Your task to perform on an android device: turn notification dots off Image 0: 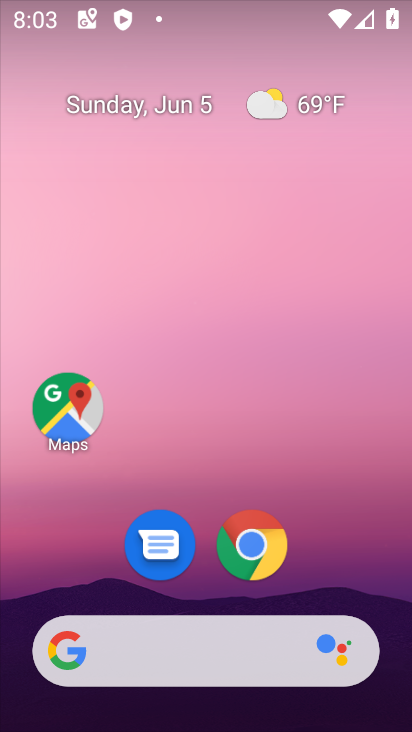
Step 0: drag from (360, 551) to (370, 204)
Your task to perform on an android device: turn notification dots off Image 1: 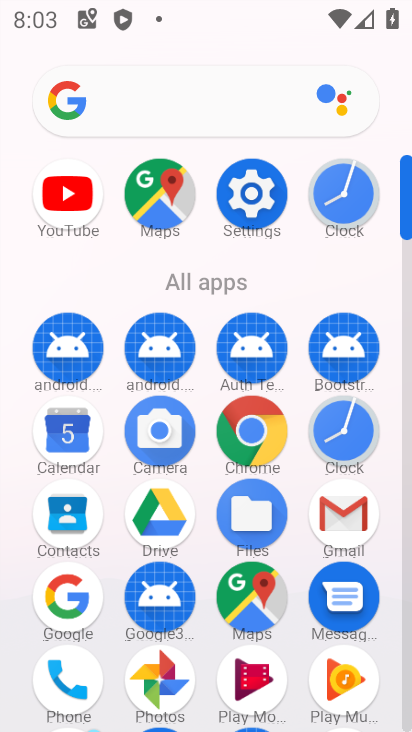
Step 1: click (261, 209)
Your task to perform on an android device: turn notification dots off Image 2: 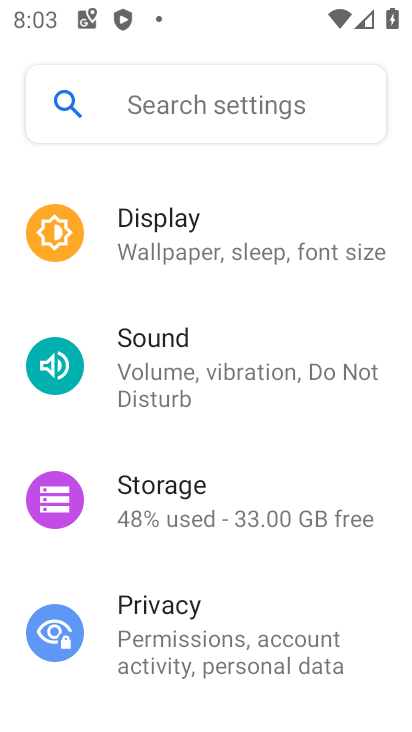
Step 2: drag from (372, 429) to (373, 544)
Your task to perform on an android device: turn notification dots off Image 3: 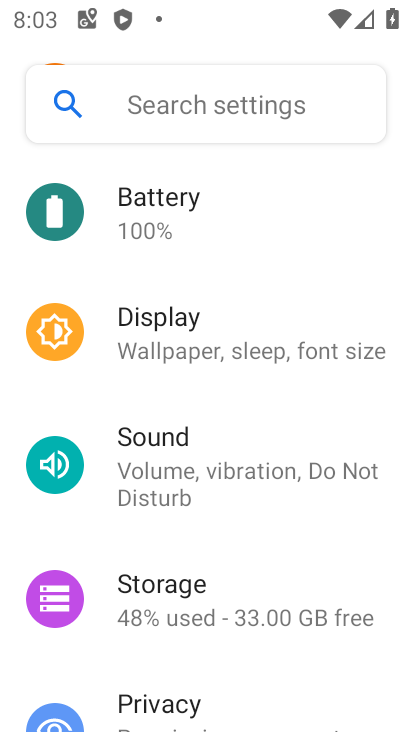
Step 3: drag from (369, 253) to (385, 389)
Your task to perform on an android device: turn notification dots off Image 4: 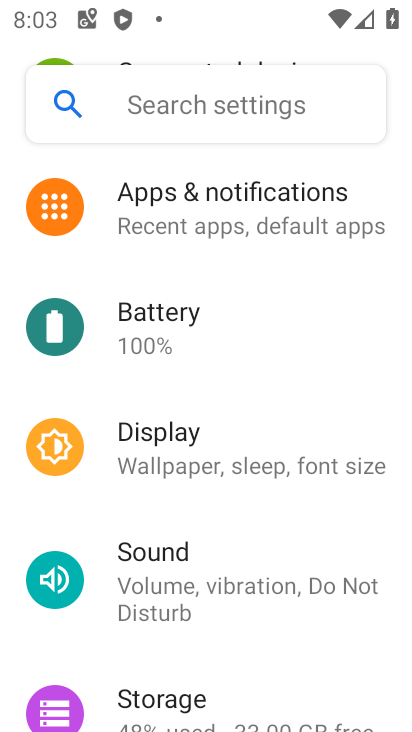
Step 4: drag from (382, 183) to (381, 340)
Your task to perform on an android device: turn notification dots off Image 5: 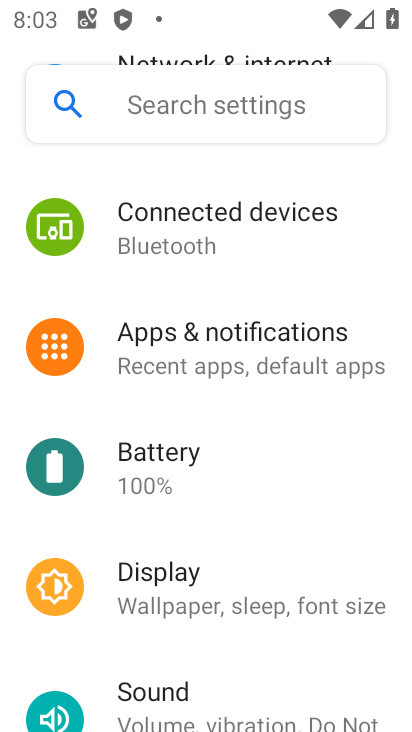
Step 5: drag from (373, 175) to (390, 489)
Your task to perform on an android device: turn notification dots off Image 6: 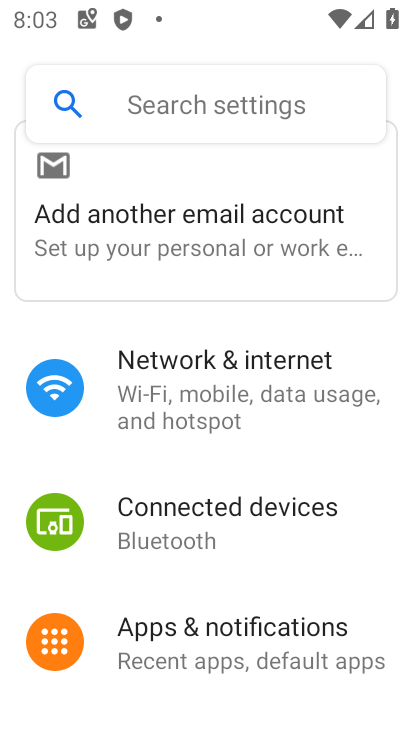
Step 6: click (283, 640)
Your task to perform on an android device: turn notification dots off Image 7: 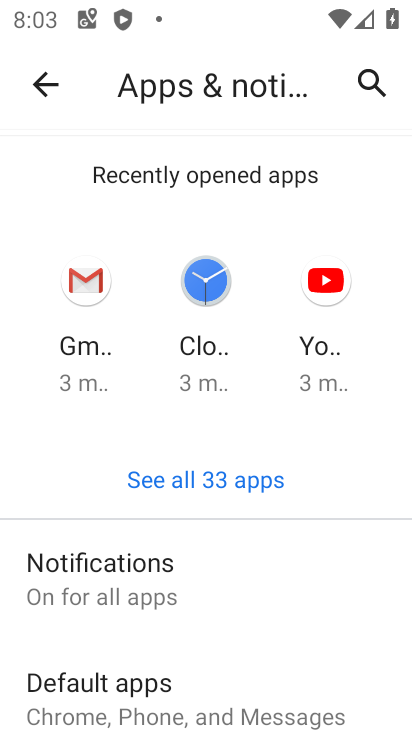
Step 7: click (195, 588)
Your task to perform on an android device: turn notification dots off Image 8: 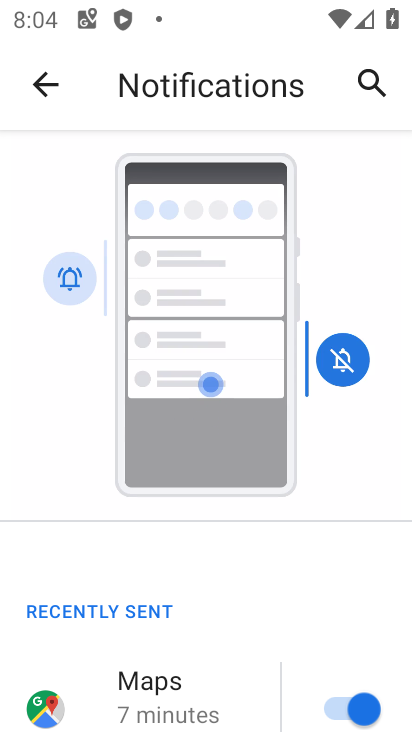
Step 8: drag from (292, 604) to (294, 467)
Your task to perform on an android device: turn notification dots off Image 9: 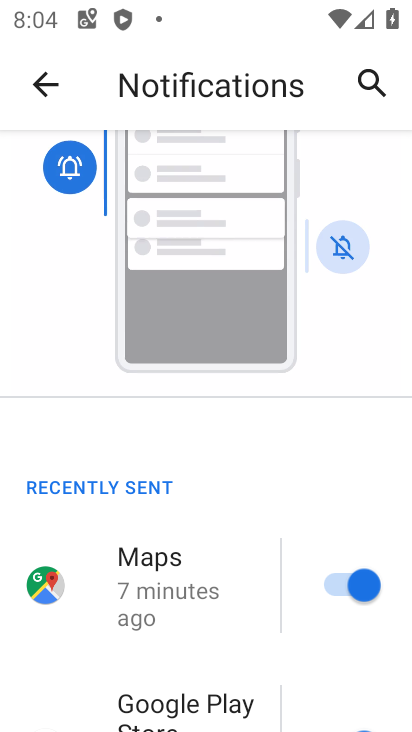
Step 9: drag from (247, 635) to (243, 472)
Your task to perform on an android device: turn notification dots off Image 10: 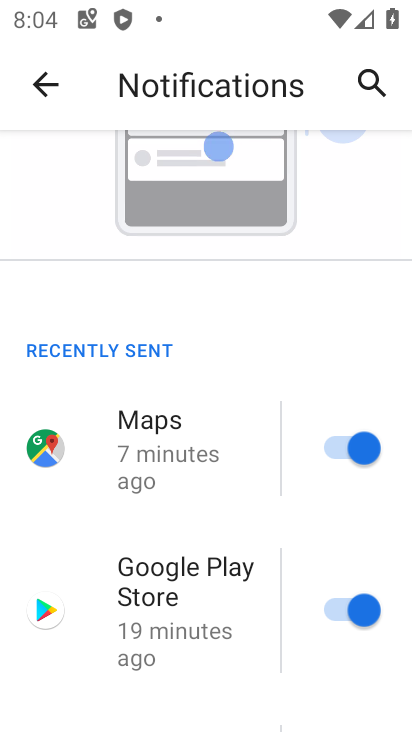
Step 10: drag from (254, 630) to (253, 473)
Your task to perform on an android device: turn notification dots off Image 11: 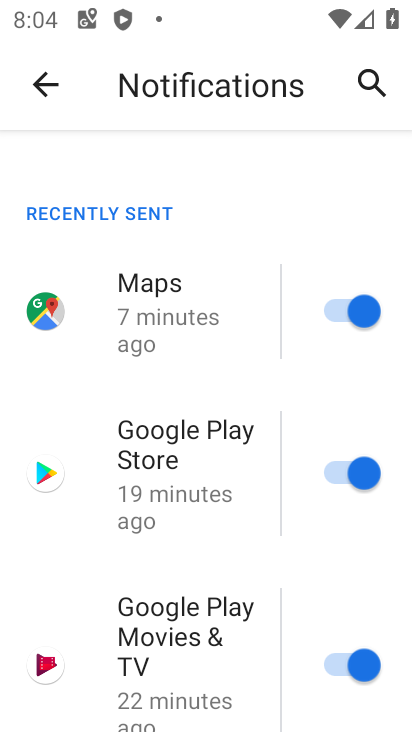
Step 11: drag from (254, 653) to (253, 496)
Your task to perform on an android device: turn notification dots off Image 12: 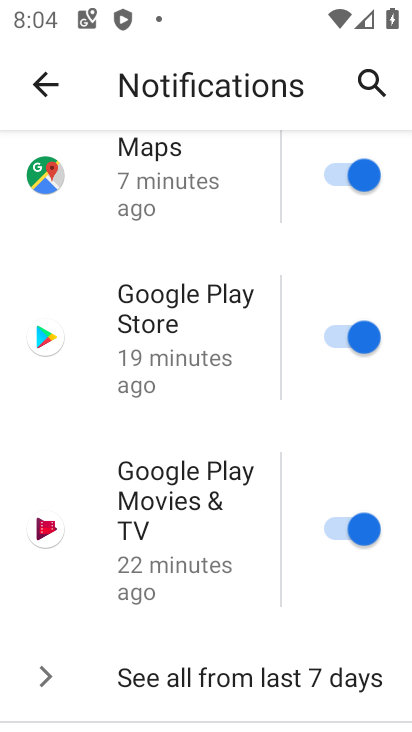
Step 12: drag from (259, 606) to (261, 388)
Your task to perform on an android device: turn notification dots off Image 13: 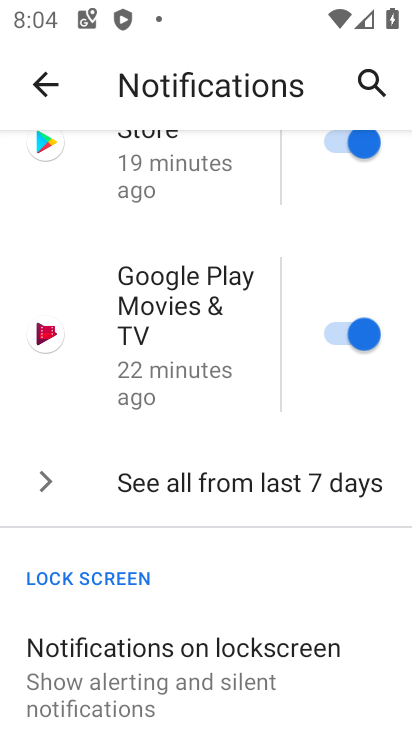
Step 13: drag from (259, 569) to (254, 341)
Your task to perform on an android device: turn notification dots off Image 14: 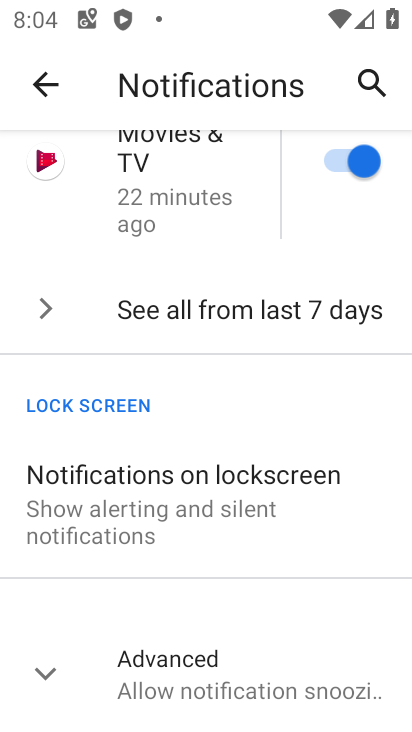
Step 14: click (297, 673)
Your task to perform on an android device: turn notification dots off Image 15: 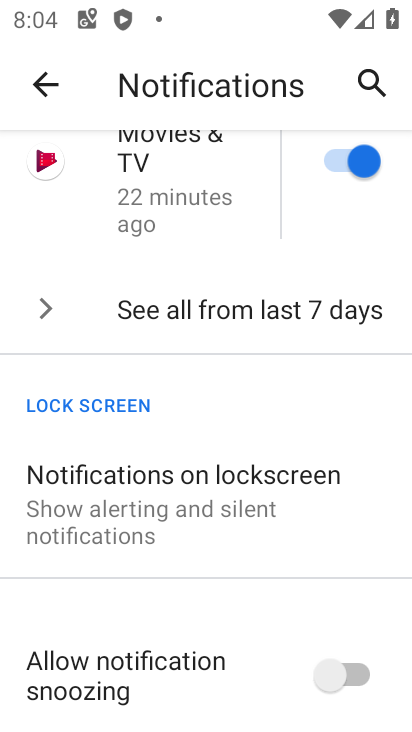
Step 15: drag from (265, 674) to (262, 502)
Your task to perform on an android device: turn notification dots off Image 16: 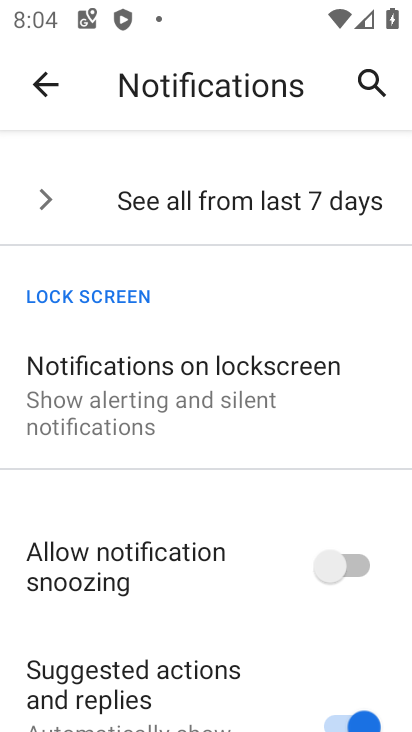
Step 16: drag from (273, 667) to (269, 498)
Your task to perform on an android device: turn notification dots off Image 17: 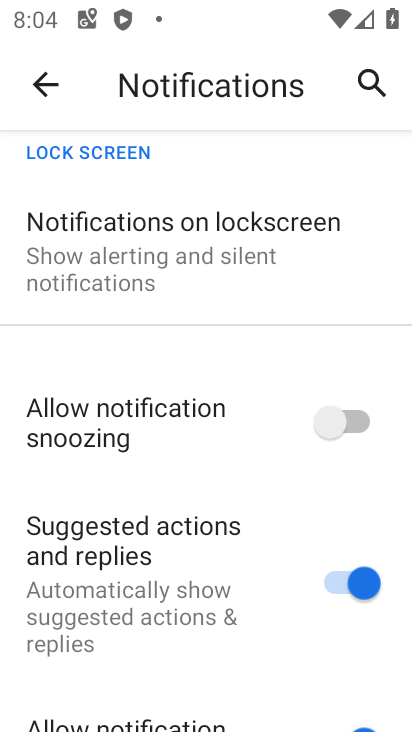
Step 17: drag from (269, 680) to (283, 409)
Your task to perform on an android device: turn notification dots off Image 18: 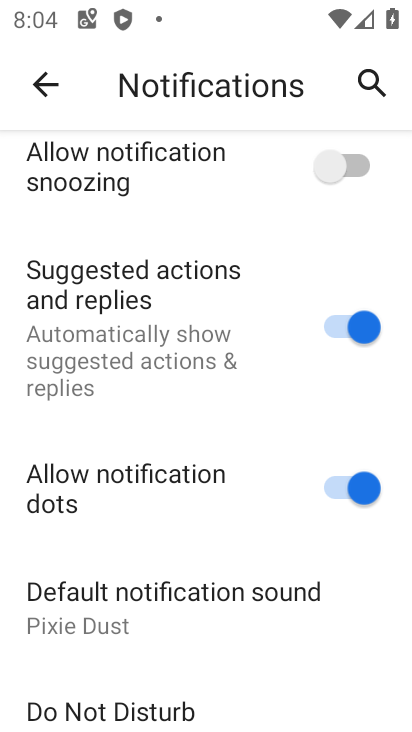
Step 18: drag from (328, 652) to (301, 475)
Your task to perform on an android device: turn notification dots off Image 19: 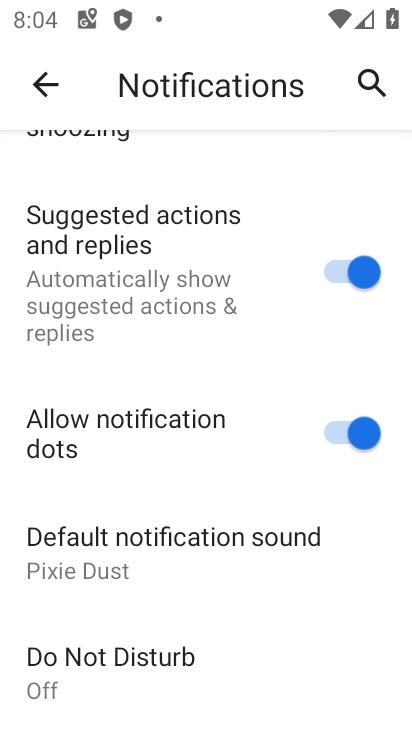
Step 19: click (364, 433)
Your task to perform on an android device: turn notification dots off Image 20: 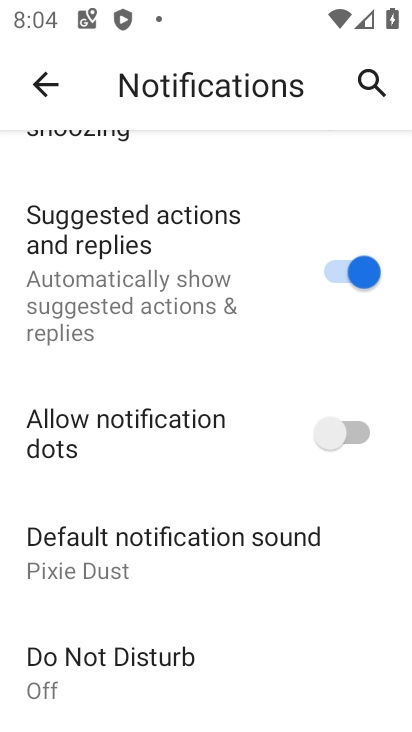
Step 20: task complete